Your task to perform on an android device: Open ESPN.com Image 0: 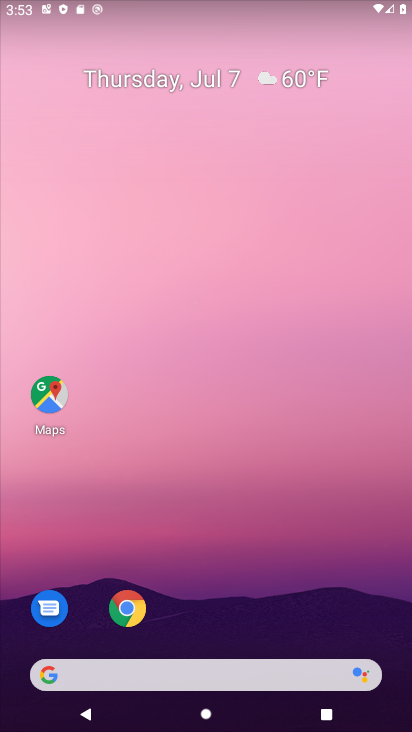
Step 0: click (139, 608)
Your task to perform on an android device: Open ESPN.com Image 1: 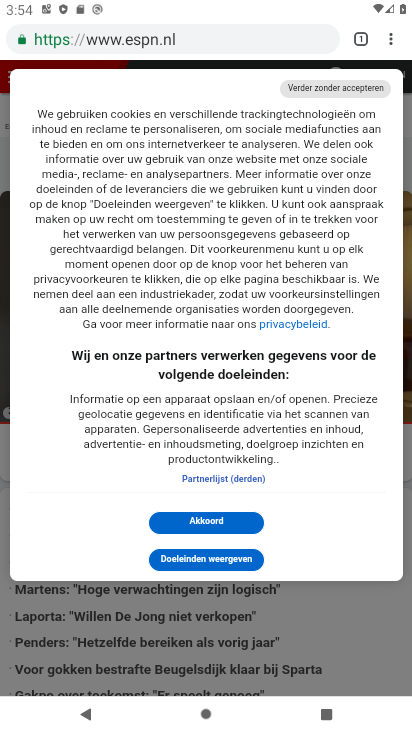
Step 1: task complete